Your task to perform on an android device: toggle wifi Image 0: 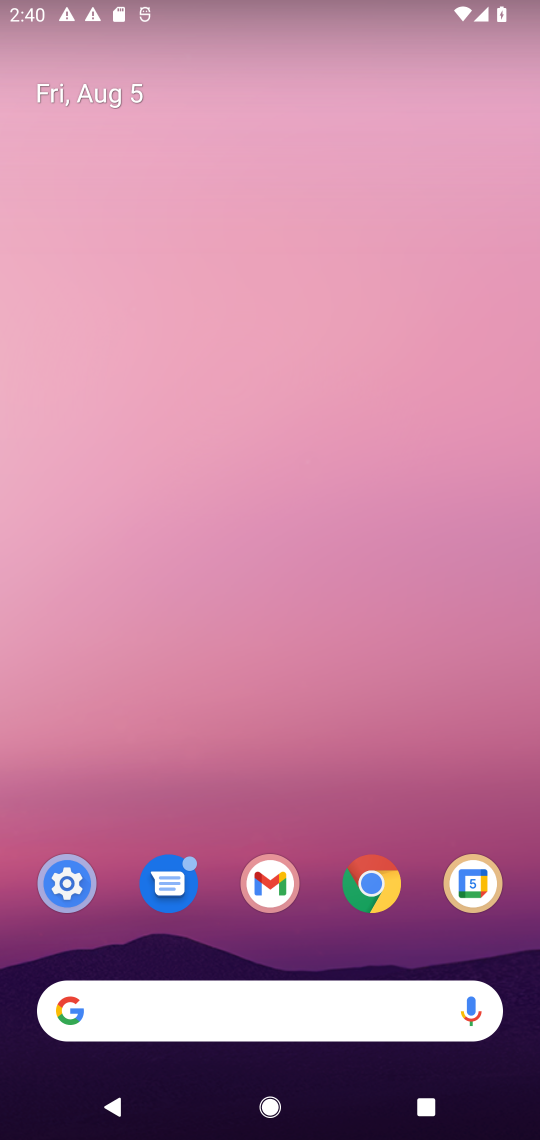
Step 0: drag from (317, 934) to (354, 52)
Your task to perform on an android device: toggle wifi Image 1: 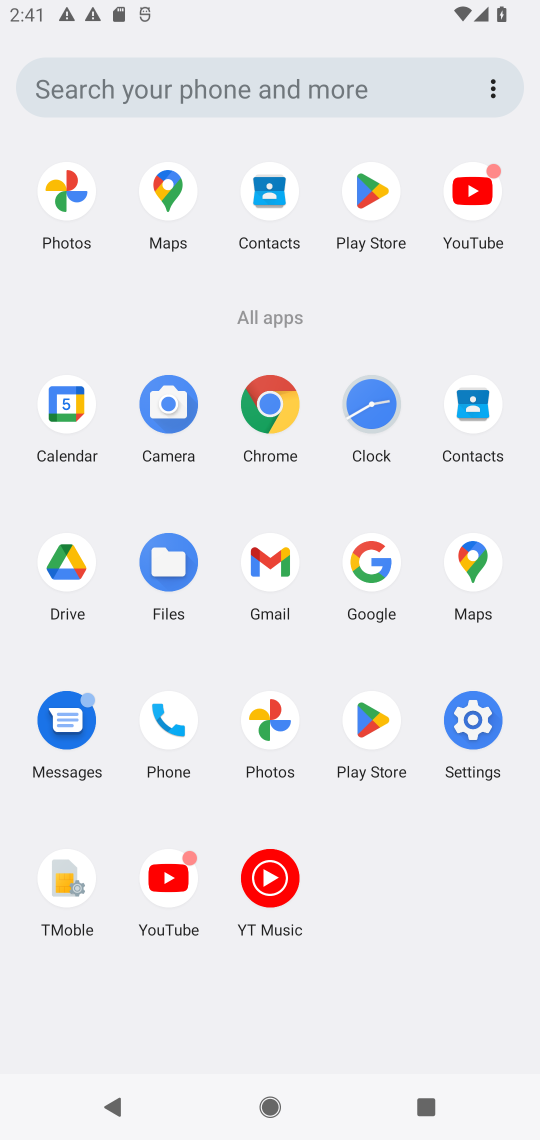
Step 1: click (471, 707)
Your task to perform on an android device: toggle wifi Image 2: 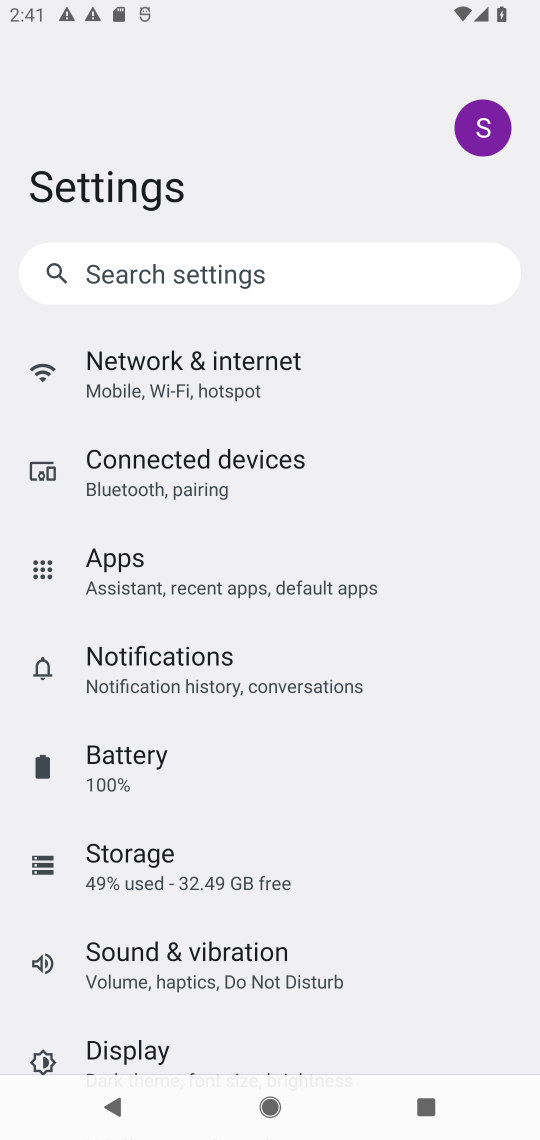
Step 2: click (269, 379)
Your task to perform on an android device: toggle wifi Image 3: 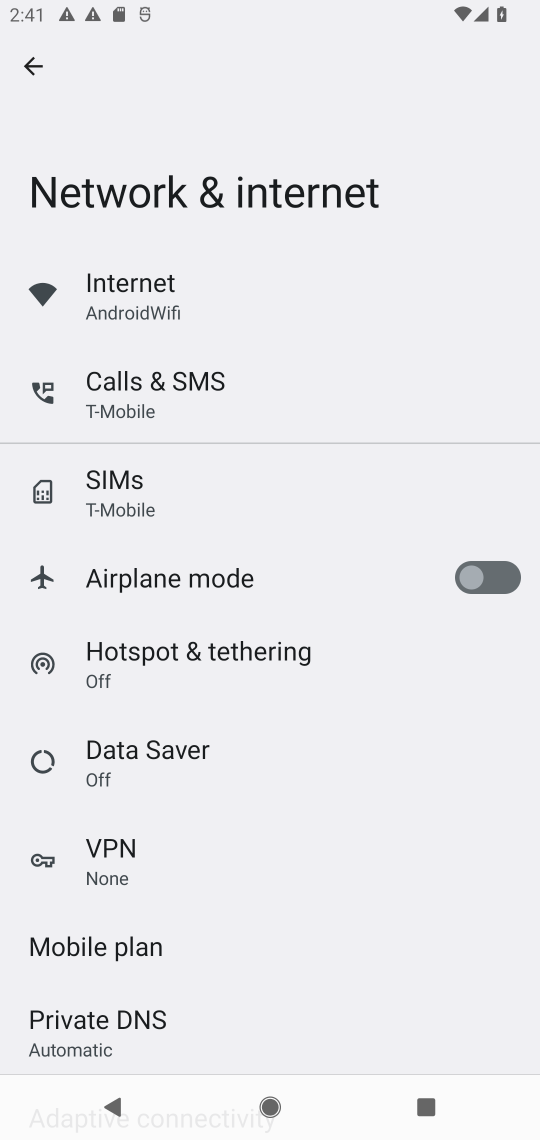
Step 3: click (210, 286)
Your task to perform on an android device: toggle wifi Image 4: 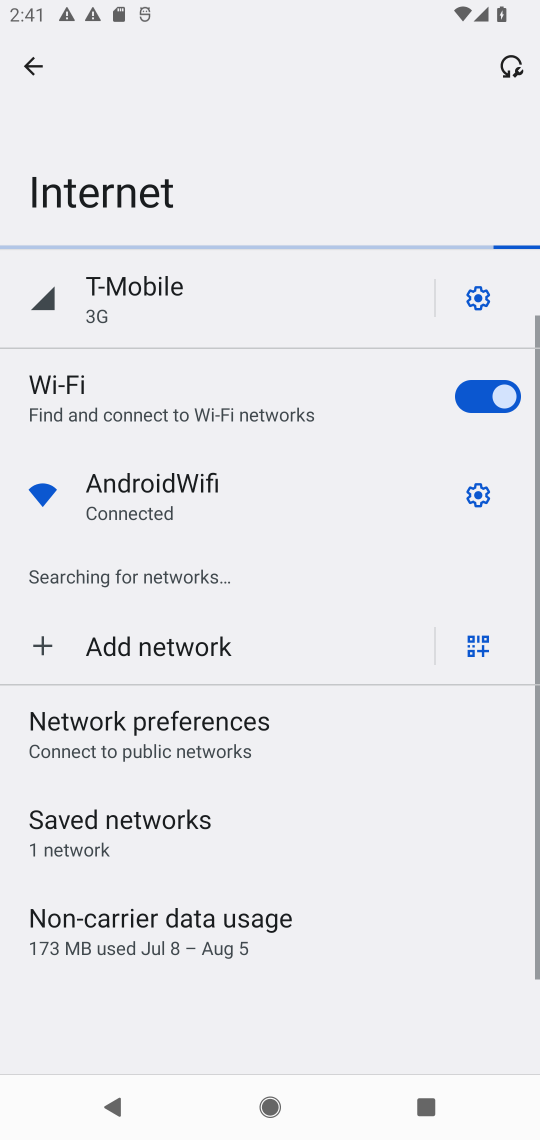
Step 4: click (210, 286)
Your task to perform on an android device: toggle wifi Image 5: 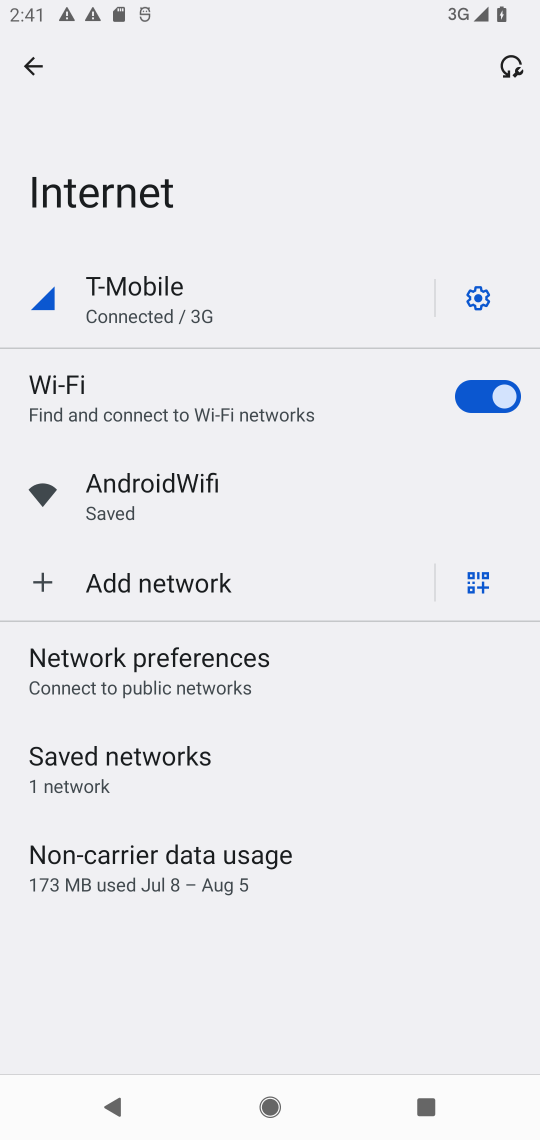
Step 5: click (117, 405)
Your task to perform on an android device: toggle wifi Image 6: 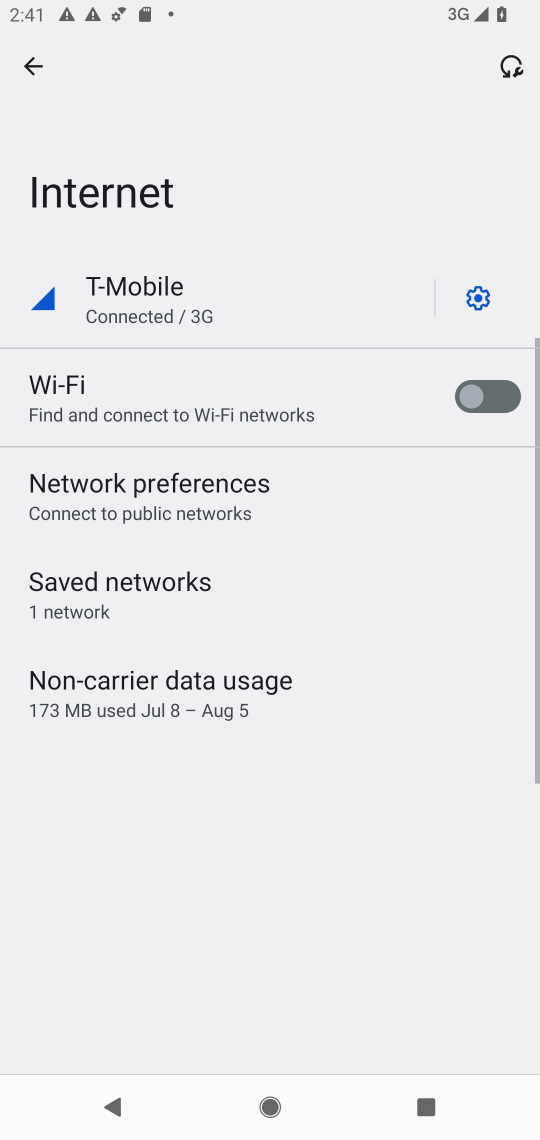
Step 6: click (482, 384)
Your task to perform on an android device: toggle wifi Image 7: 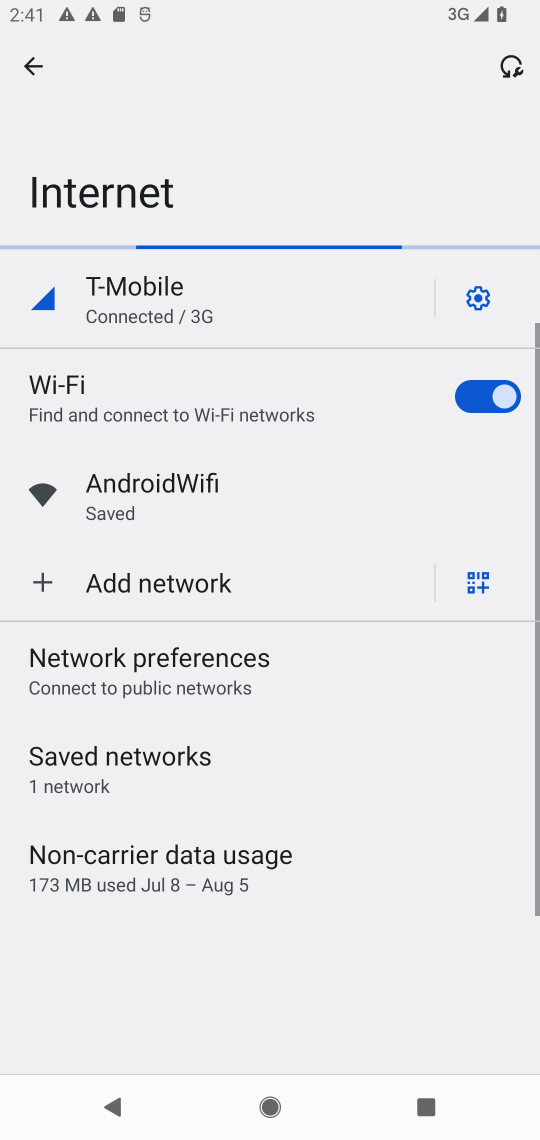
Step 7: task complete